Your task to perform on an android device: Empty the shopping cart on ebay. Add razer blade to the cart on ebay Image 0: 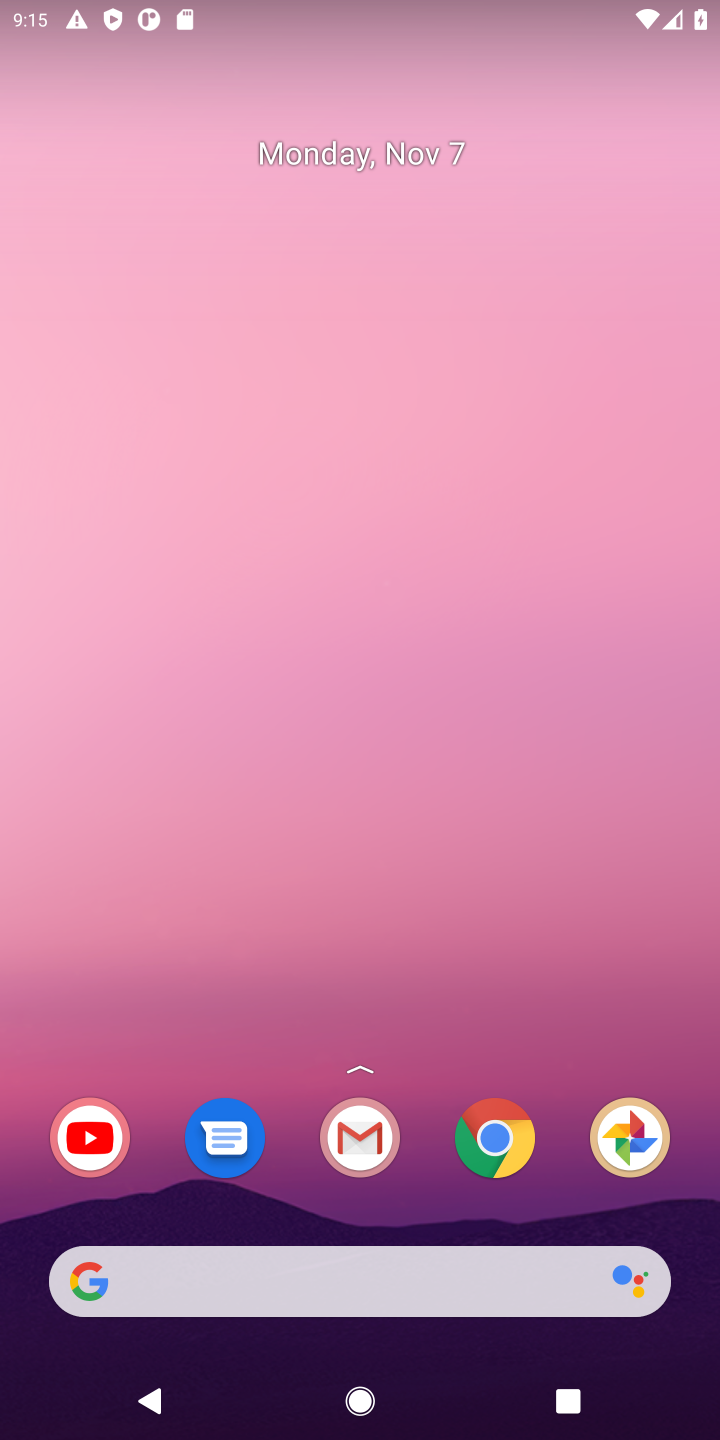
Step 0: press home button
Your task to perform on an android device: Empty the shopping cart on ebay. Add razer blade to the cart on ebay Image 1: 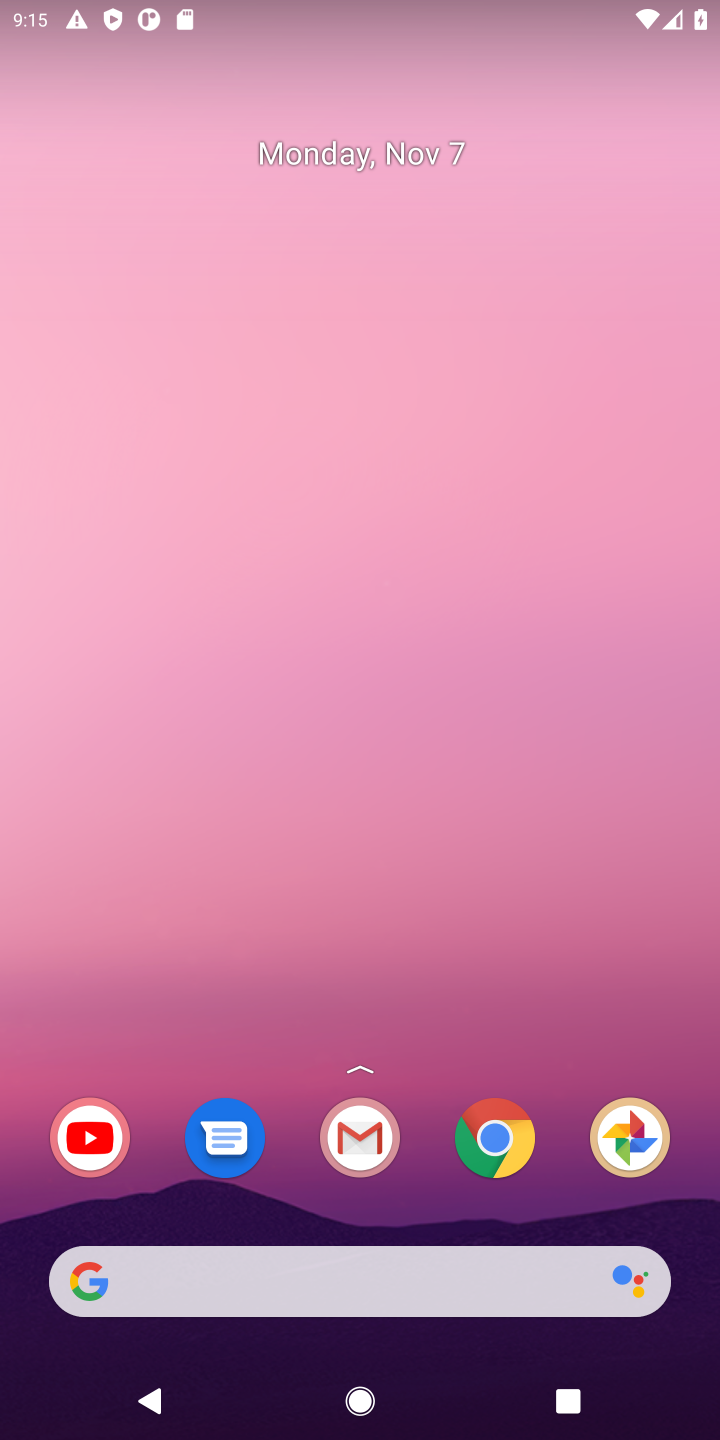
Step 1: click (489, 1123)
Your task to perform on an android device: Empty the shopping cart on ebay. Add razer blade to the cart on ebay Image 2: 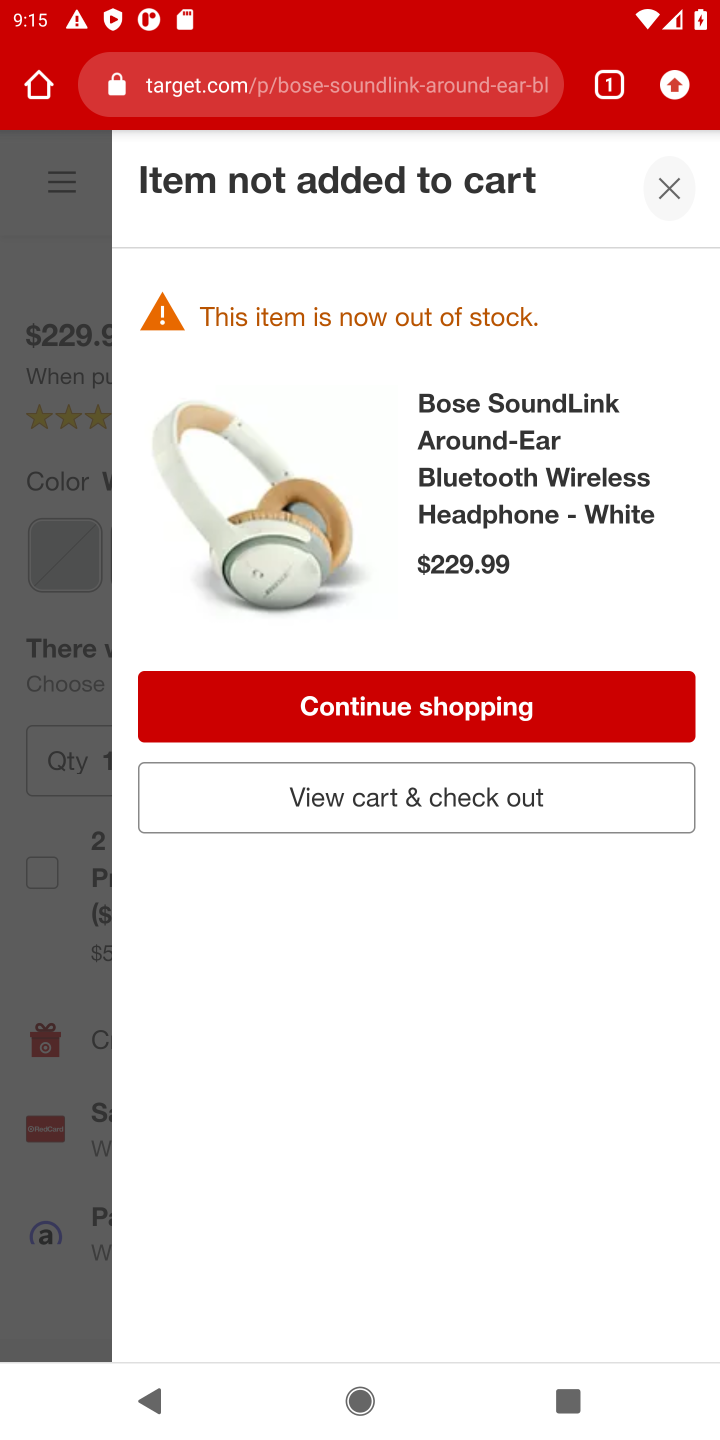
Step 2: click (186, 90)
Your task to perform on an android device: Empty the shopping cart on ebay. Add razer blade to the cart on ebay Image 3: 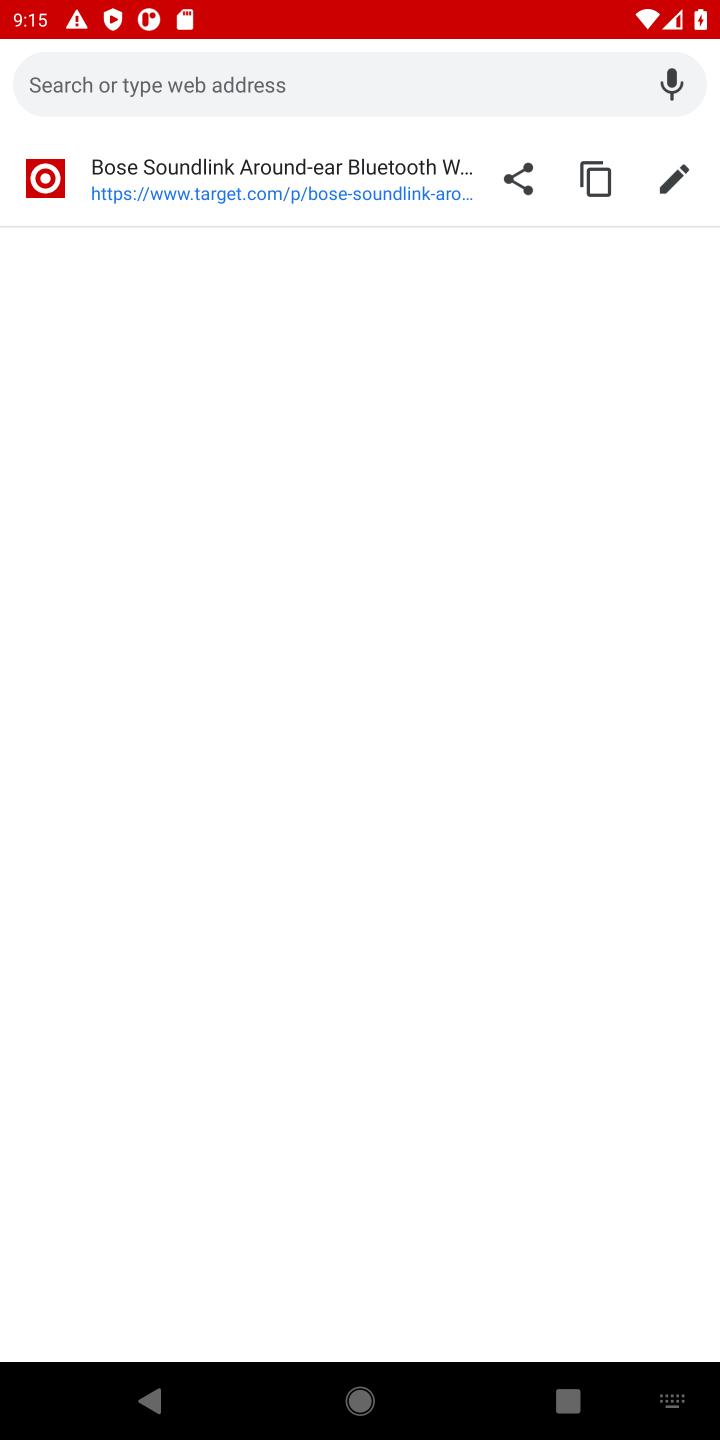
Step 3: type "ebay"
Your task to perform on an android device: Empty the shopping cart on ebay. Add razer blade to the cart on ebay Image 4: 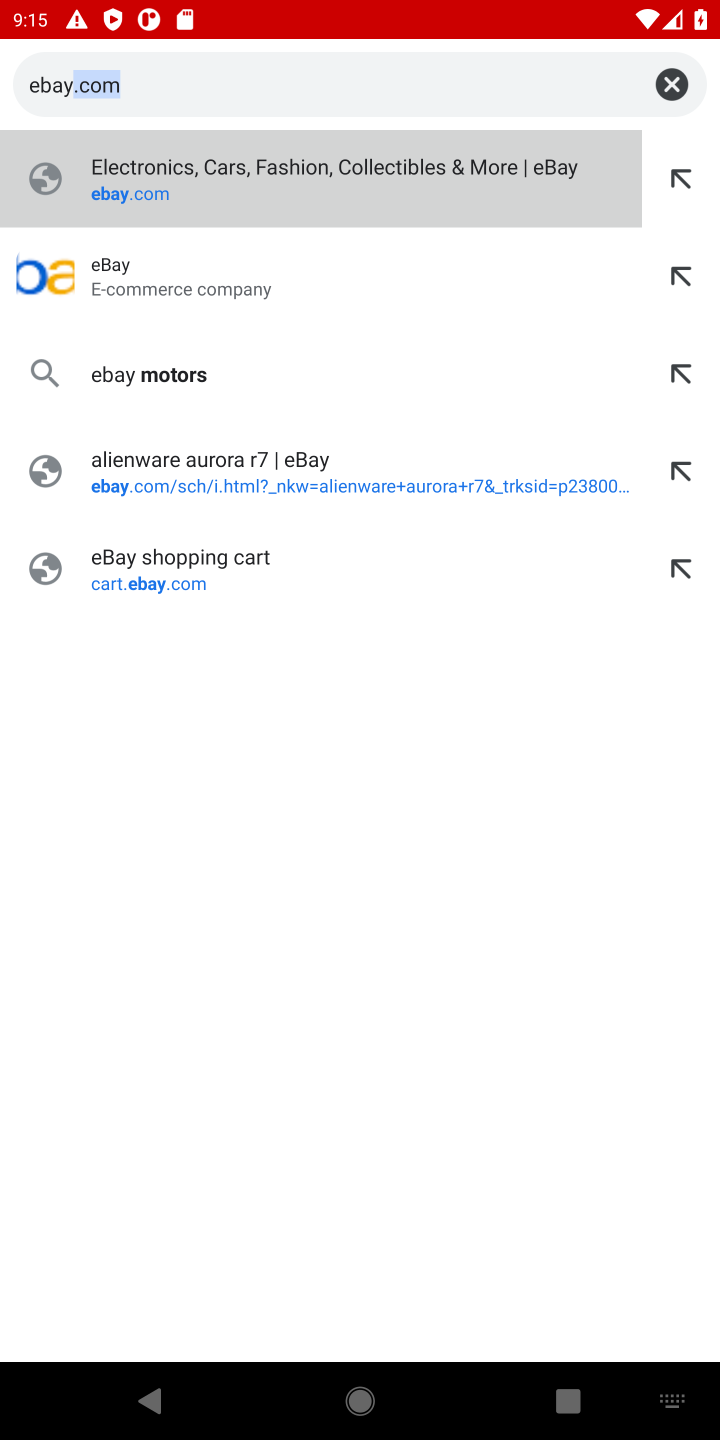
Step 4: type ""
Your task to perform on an android device: Empty the shopping cart on ebay. Add razer blade to the cart on ebay Image 5: 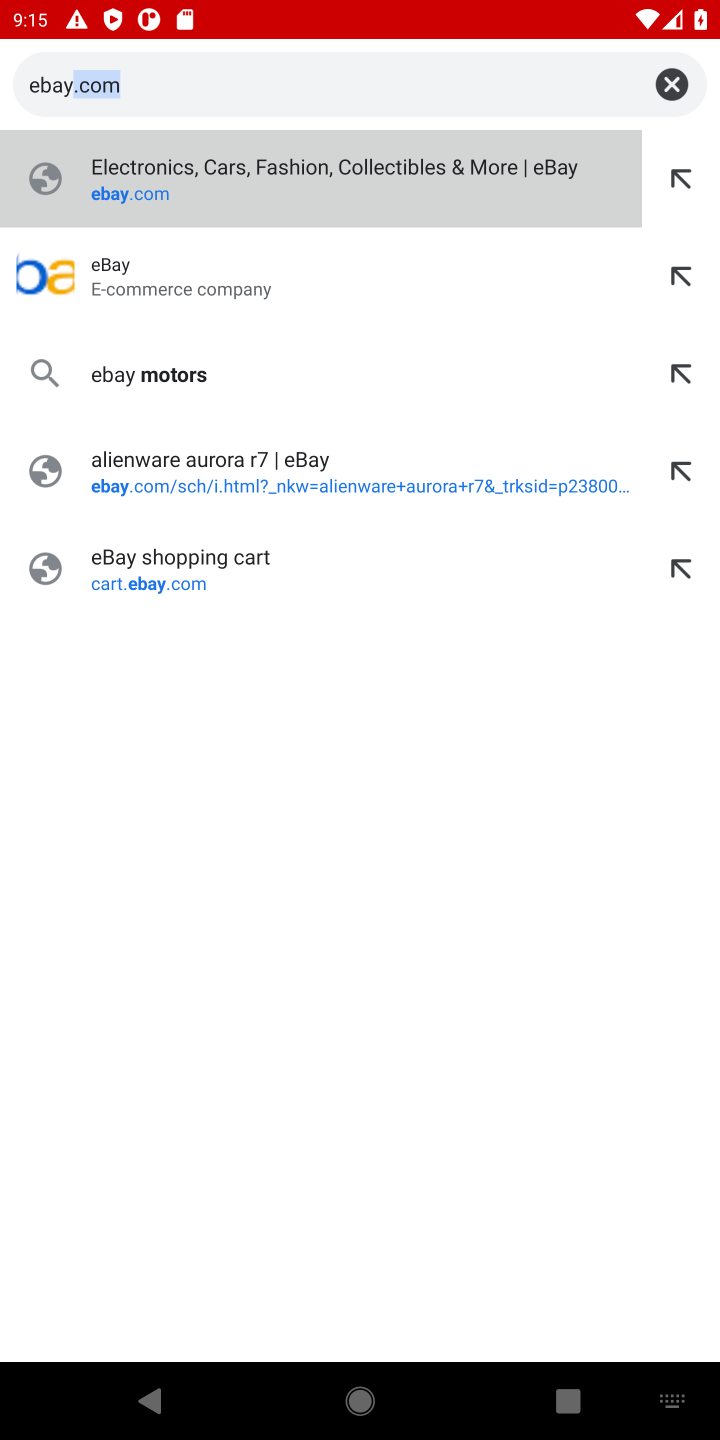
Step 5: click (113, 272)
Your task to perform on an android device: Empty the shopping cart on ebay. Add razer blade to the cart on ebay Image 6: 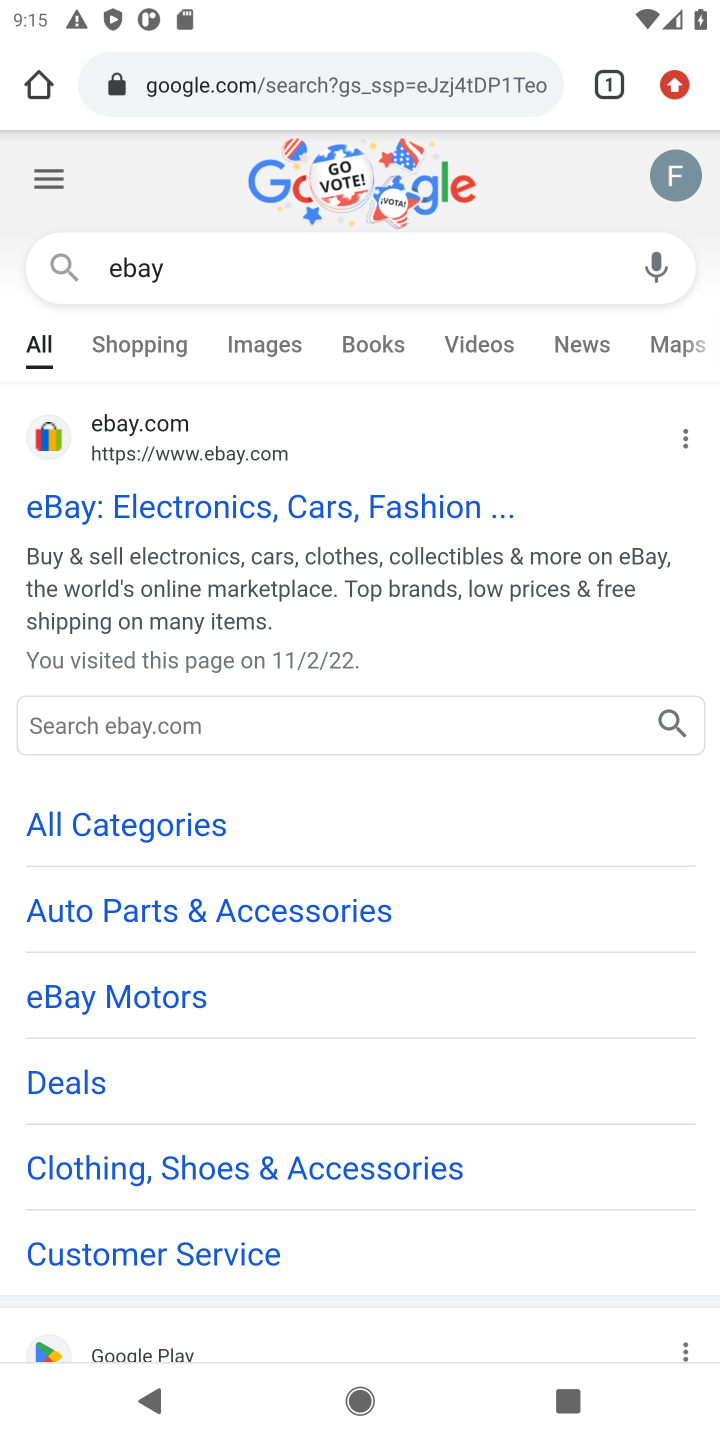
Step 6: click (233, 504)
Your task to perform on an android device: Empty the shopping cart on ebay. Add razer blade to the cart on ebay Image 7: 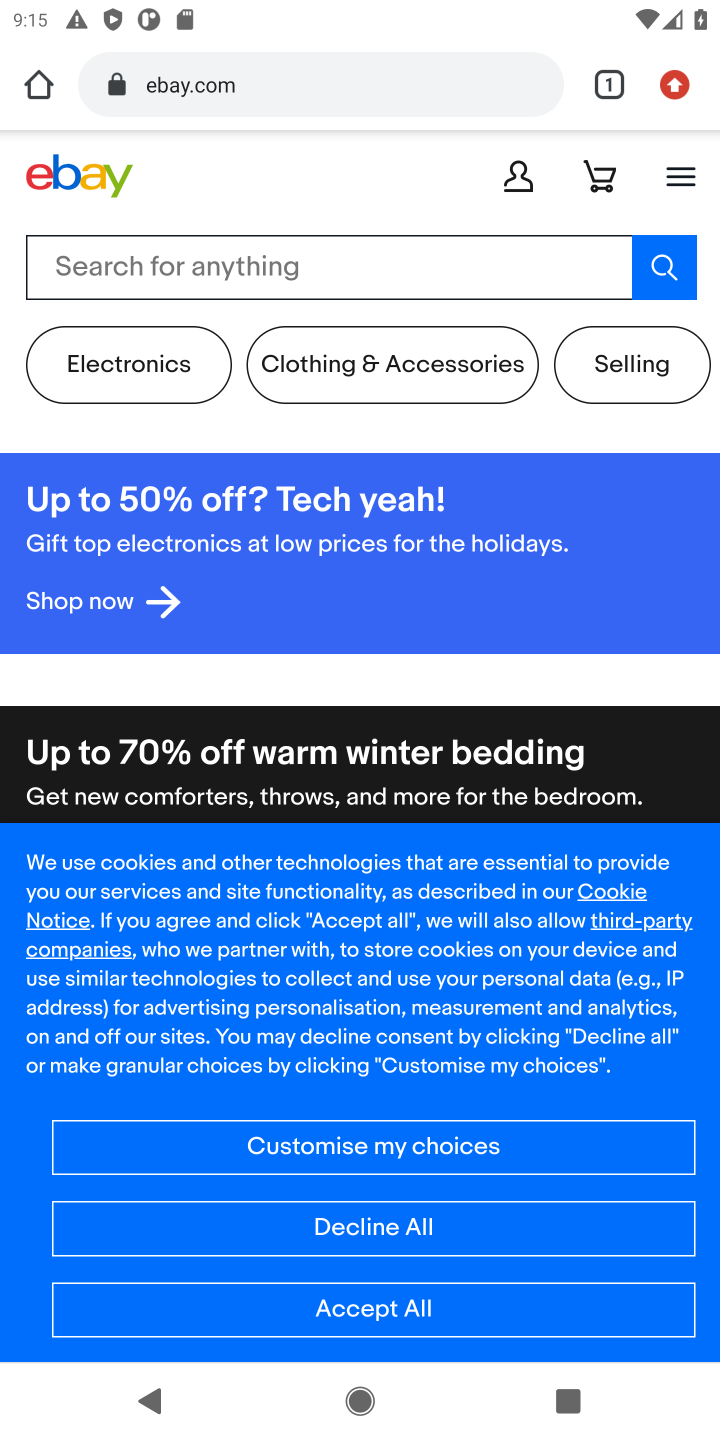
Step 7: click (156, 267)
Your task to perform on an android device: Empty the shopping cart on ebay. Add razer blade to the cart on ebay Image 8: 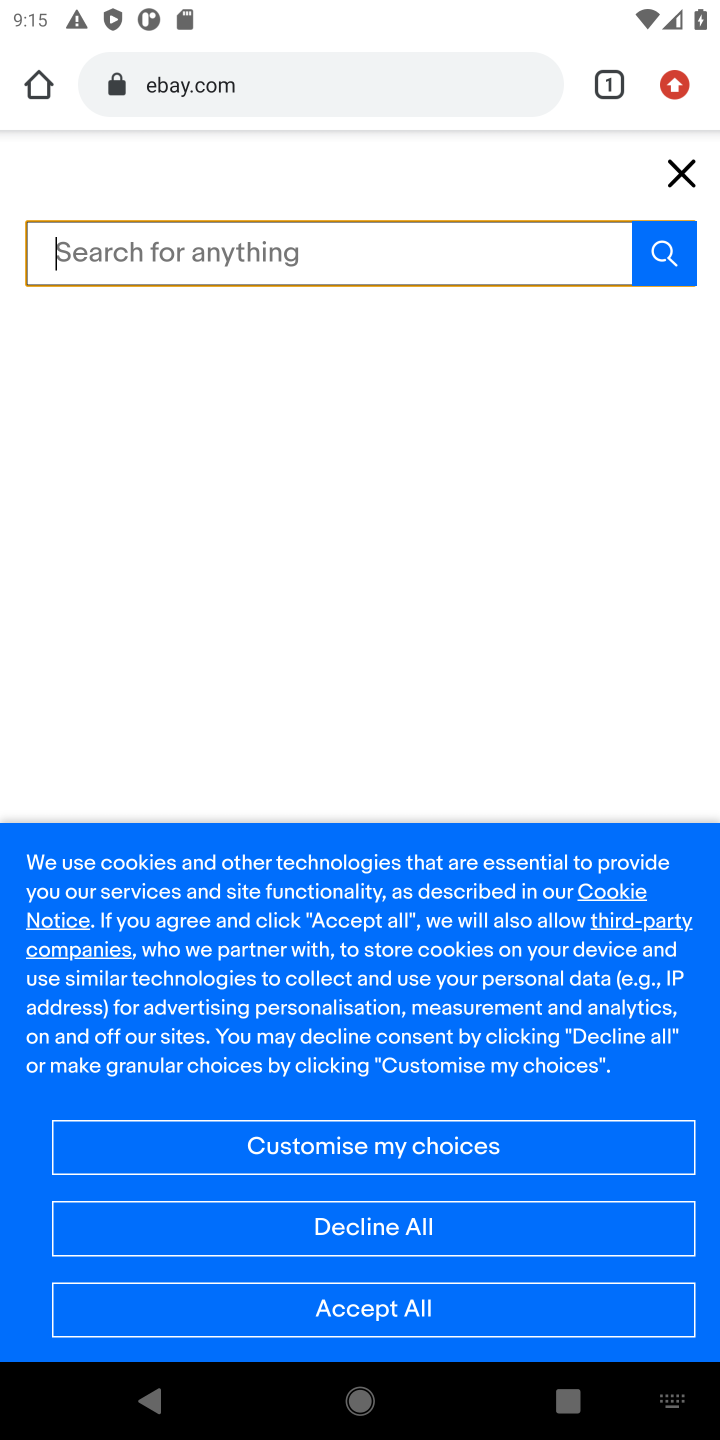
Step 8: type "razer blade"
Your task to perform on an android device: Empty the shopping cart on ebay. Add razer blade to the cart on ebay Image 9: 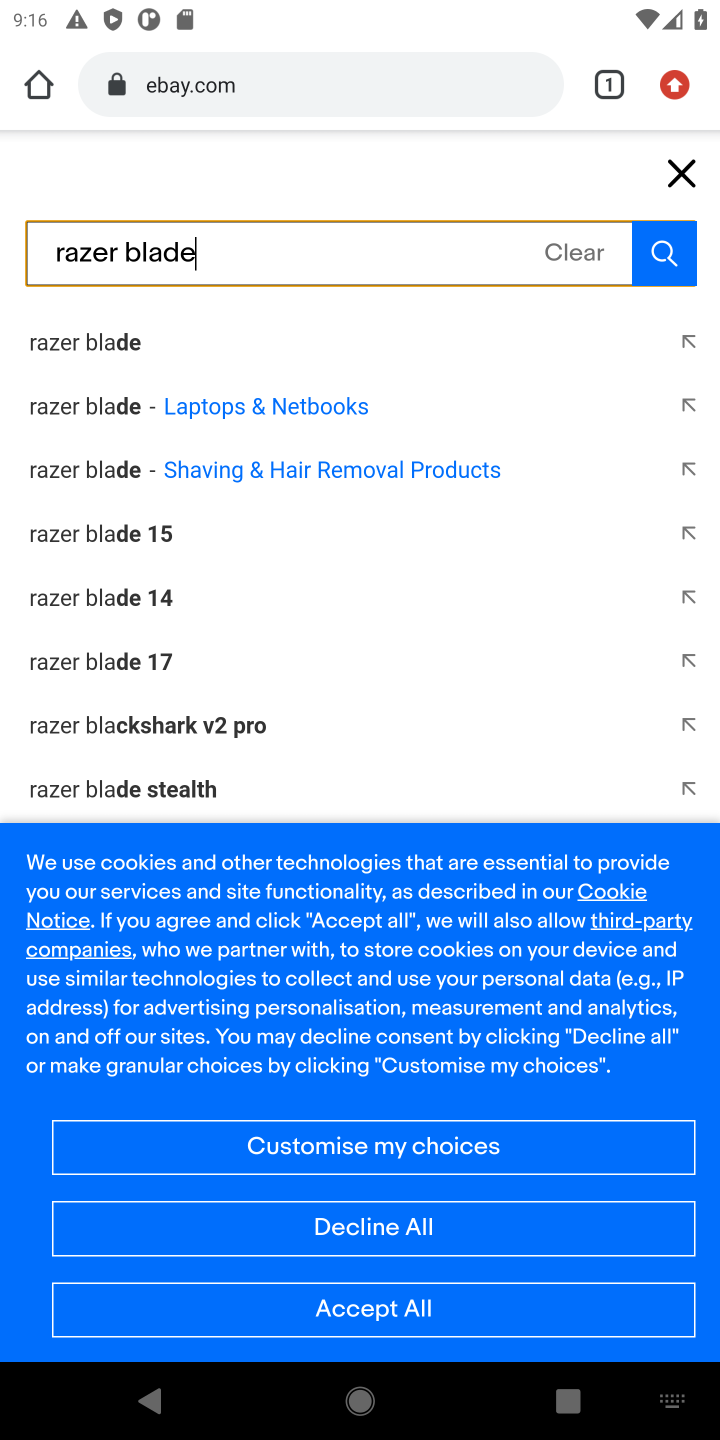
Step 9: click (85, 333)
Your task to perform on an android device: Empty the shopping cart on ebay. Add razer blade to the cart on ebay Image 10: 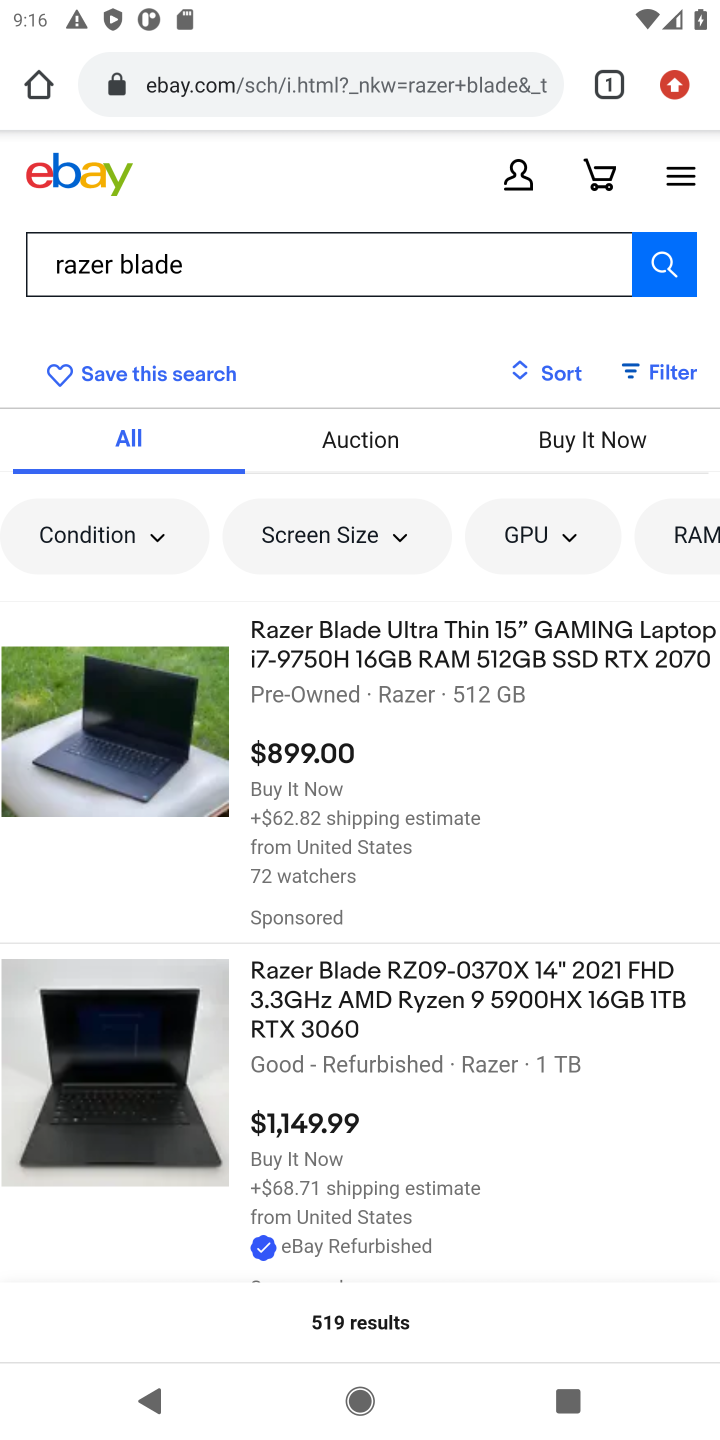
Step 10: click (72, 709)
Your task to perform on an android device: Empty the shopping cart on ebay. Add razer blade to the cart on ebay Image 11: 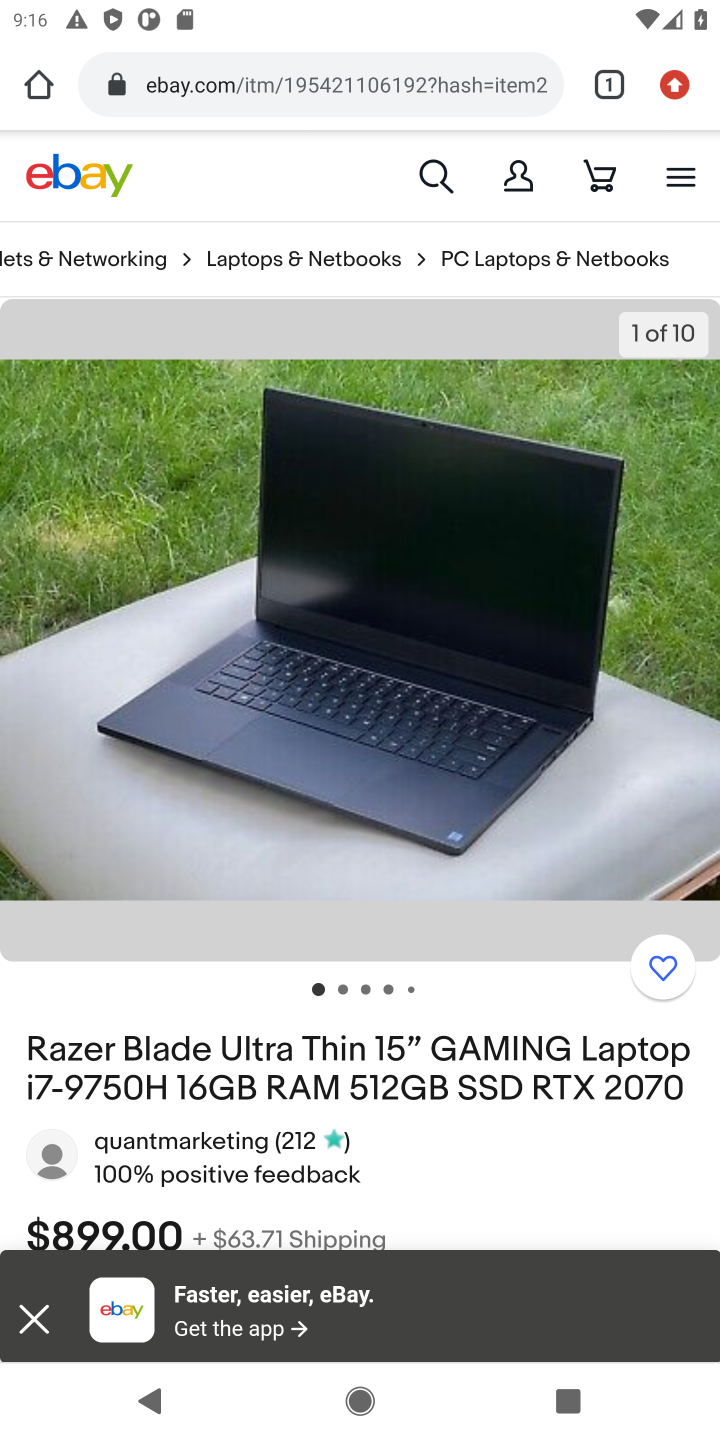
Step 11: drag from (184, 1151) to (437, 350)
Your task to perform on an android device: Empty the shopping cart on ebay. Add razer blade to the cart on ebay Image 12: 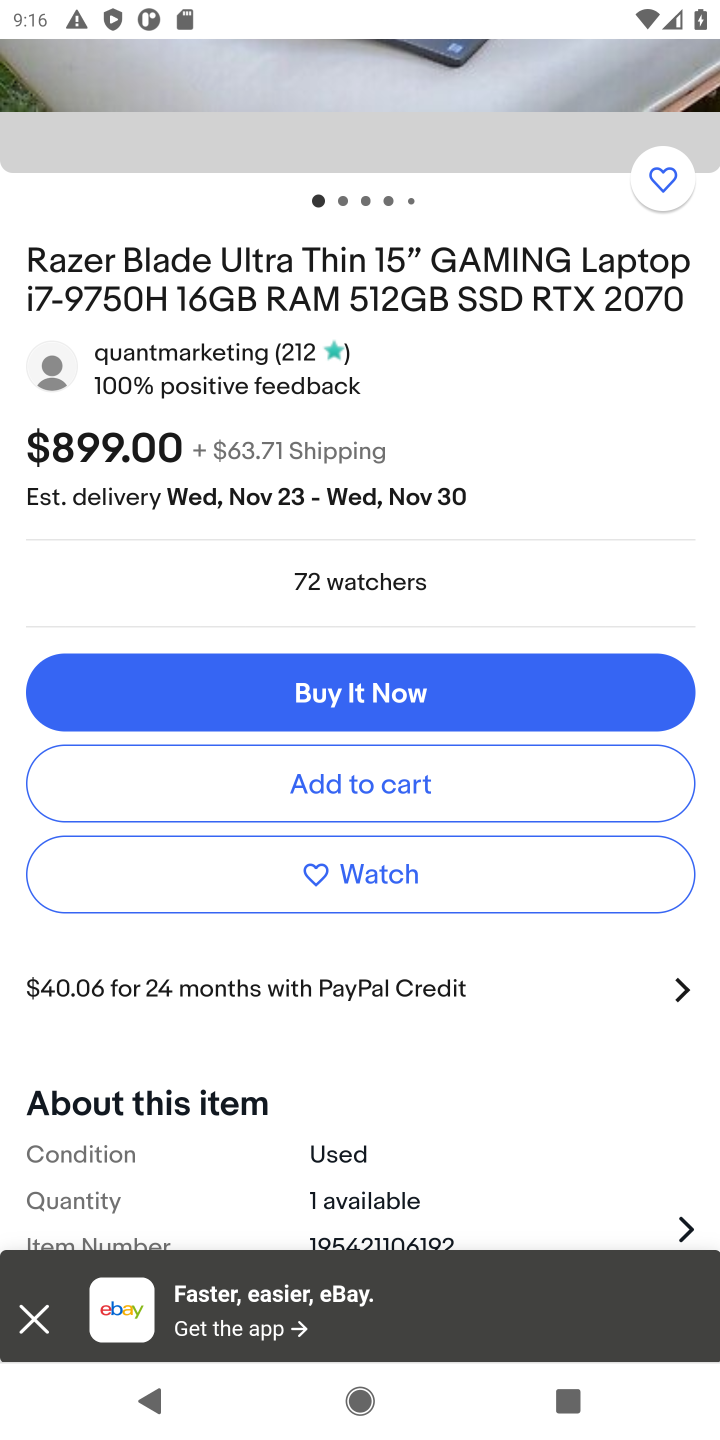
Step 12: click (359, 790)
Your task to perform on an android device: Empty the shopping cart on ebay. Add razer blade to the cart on ebay Image 13: 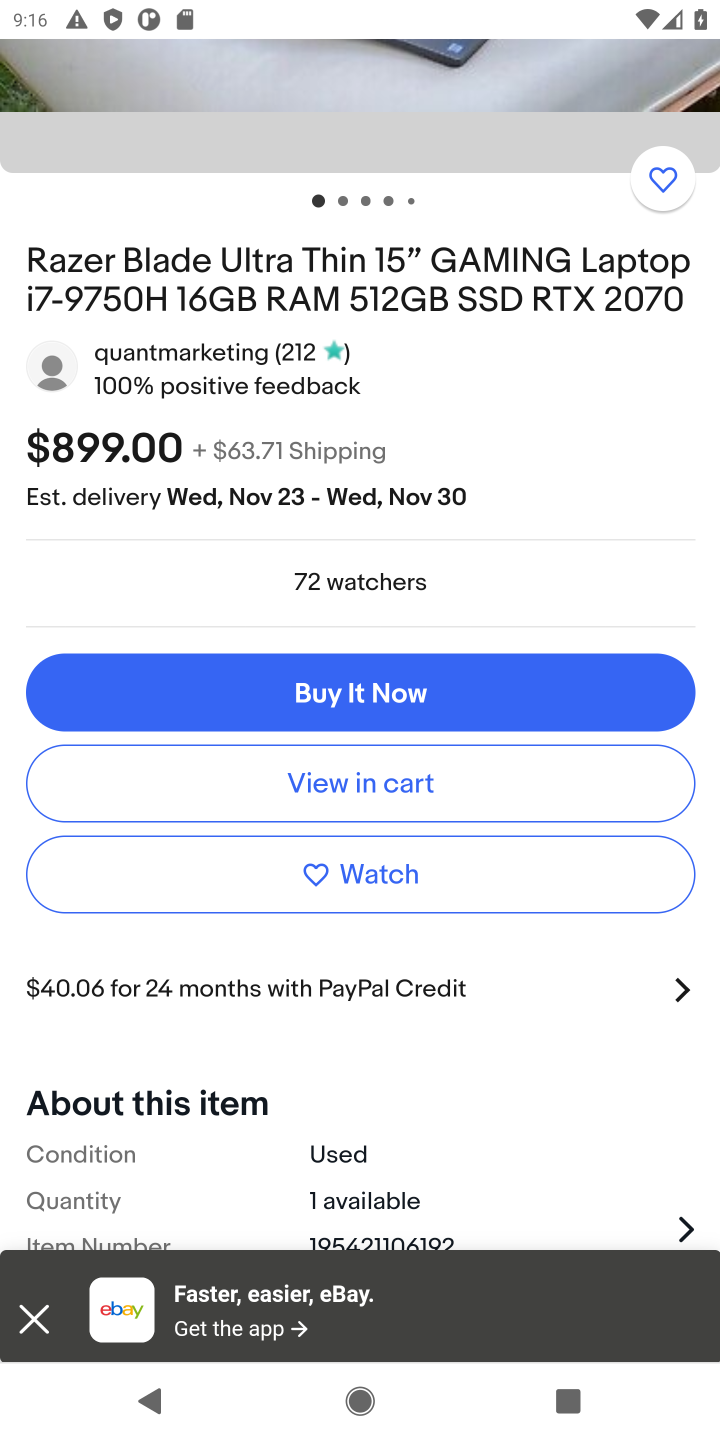
Step 13: click (319, 789)
Your task to perform on an android device: Empty the shopping cart on ebay. Add razer blade to the cart on ebay Image 14: 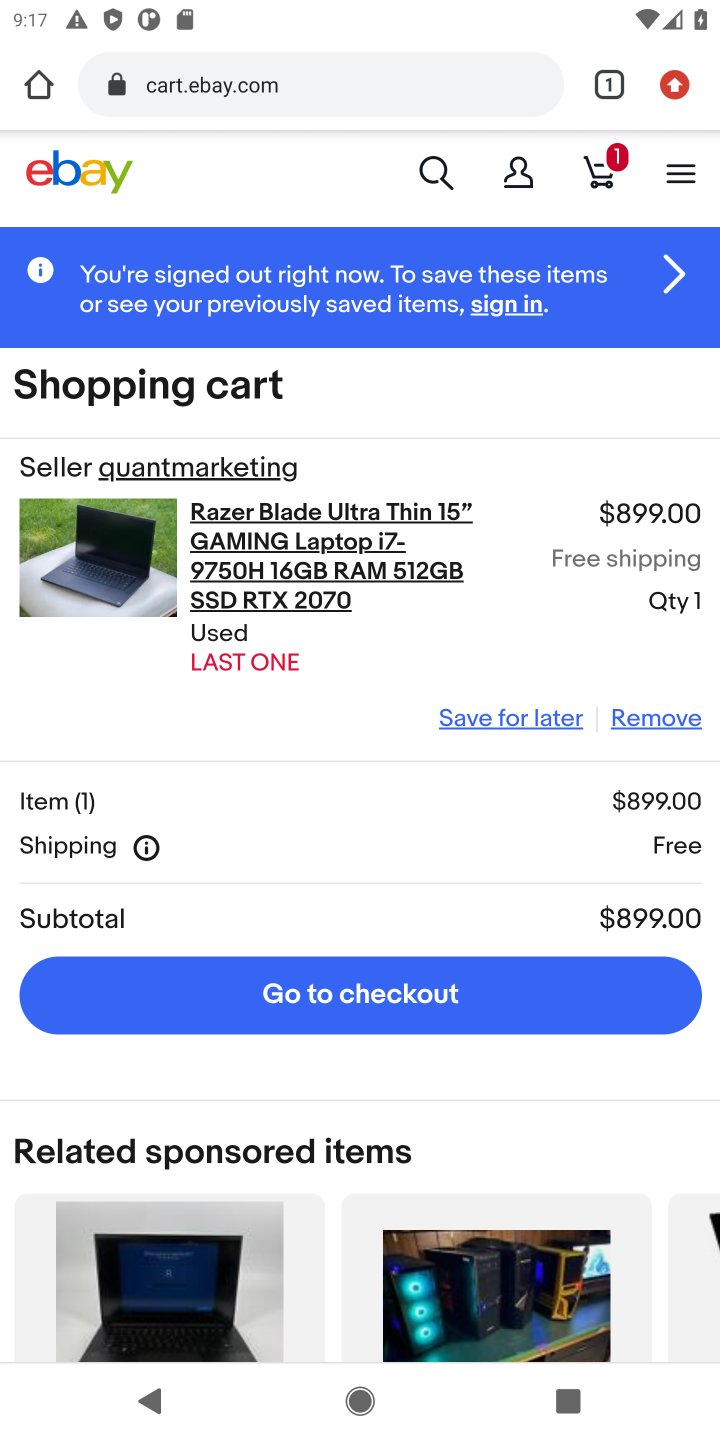
Step 14: task complete